Your task to perform on an android device: read, delete, or share a saved page in the chrome app Image 0: 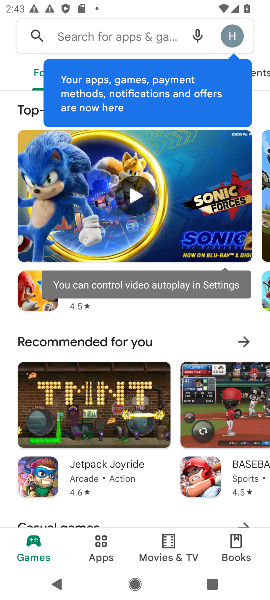
Step 0: press home button
Your task to perform on an android device: read, delete, or share a saved page in the chrome app Image 1: 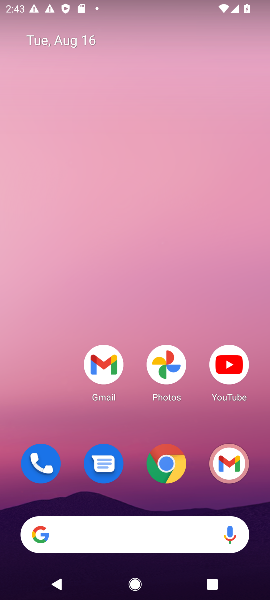
Step 1: drag from (161, 516) to (117, 27)
Your task to perform on an android device: read, delete, or share a saved page in the chrome app Image 2: 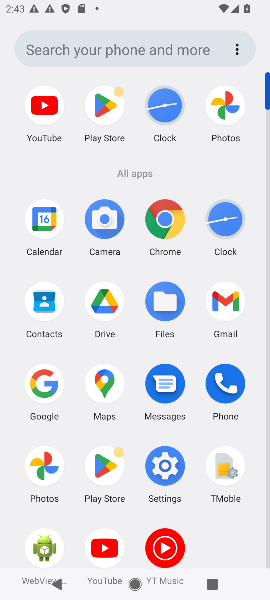
Step 2: click (152, 224)
Your task to perform on an android device: read, delete, or share a saved page in the chrome app Image 3: 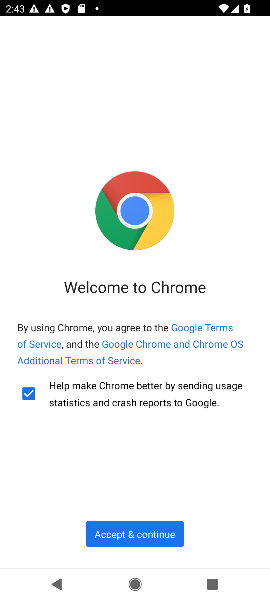
Step 3: click (165, 525)
Your task to perform on an android device: read, delete, or share a saved page in the chrome app Image 4: 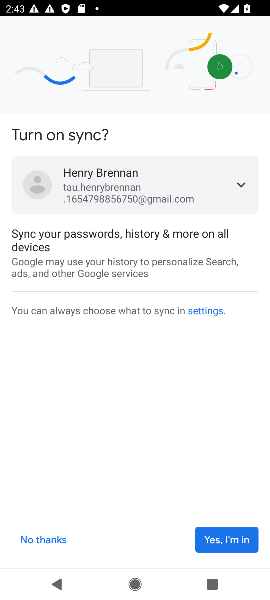
Step 4: click (226, 546)
Your task to perform on an android device: read, delete, or share a saved page in the chrome app Image 5: 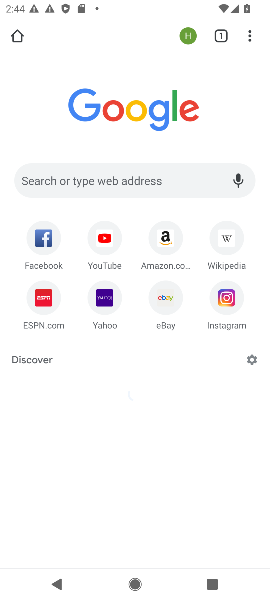
Step 5: click (250, 29)
Your task to perform on an android device: read, delete, or share a saved page in the chrome app Image 6: 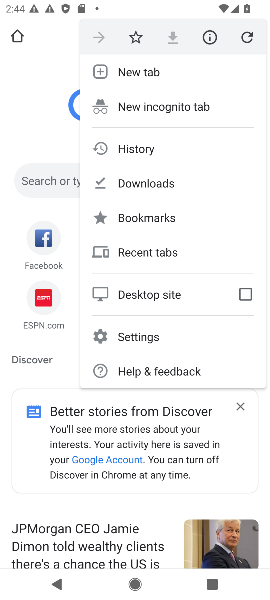
Step 6: click (149, 186)
Your task to perform on an android device: read, delete, or share a saved page in the chrome app Image 7: 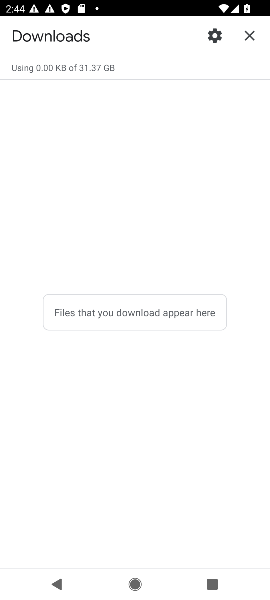
Step 7: task complete